Your task to perform on an android device: open chrome privacy settings Image 0: 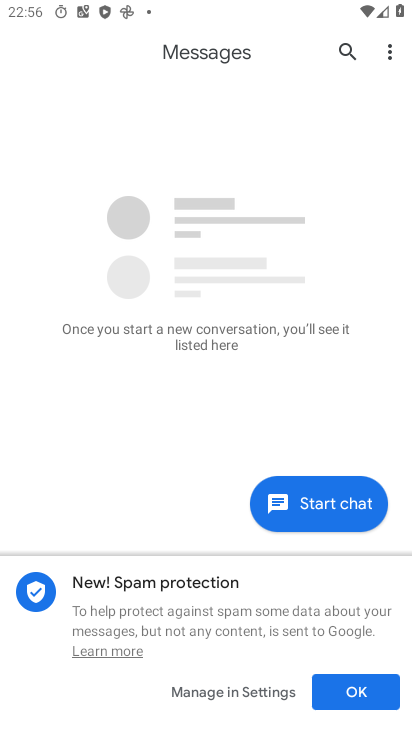
Step 0: press home button
Your task to perform on an android device: open chrome privacy settings Image 1: 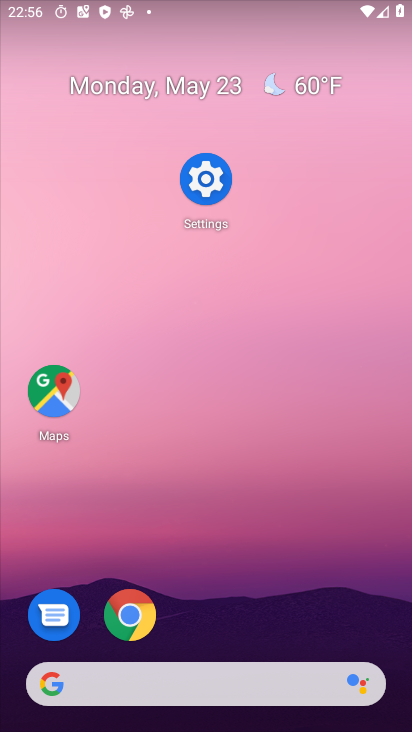
Step 1: click (126, 617)
Your task to perform on an android device: open chrome privacy settings Image 2: 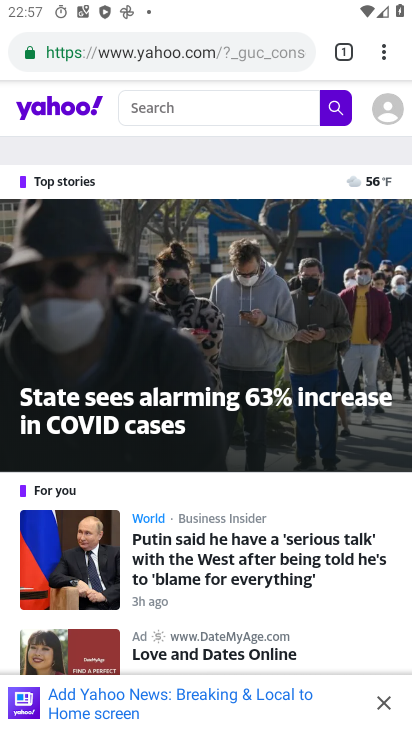
Step 2: click (376, 55)
Your task to perform on an android device: open chrome privacy settings Image 3: 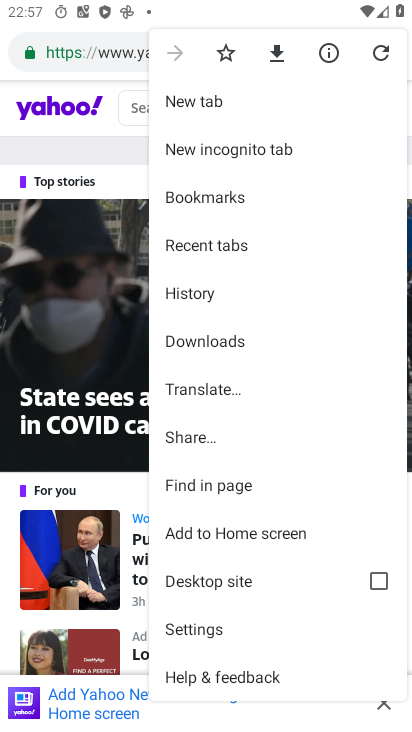
Step 3: click (218, 632)
Your task to perform on an android device: open chrome privacy settings Image 4: 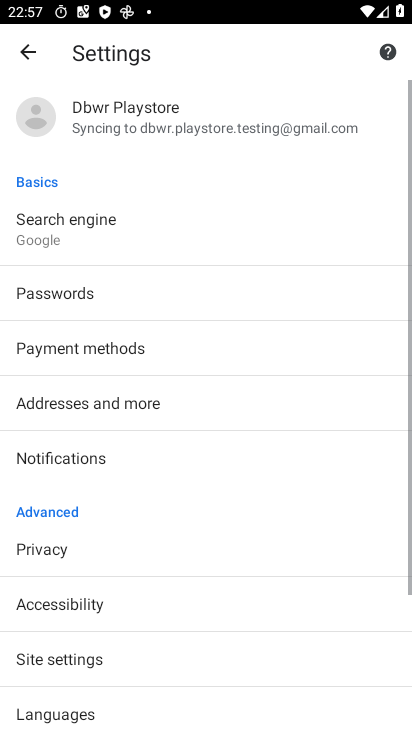
Step 4: click (72, 546)
Your task to perform on an android device: open chrome privacy settings Image 5: 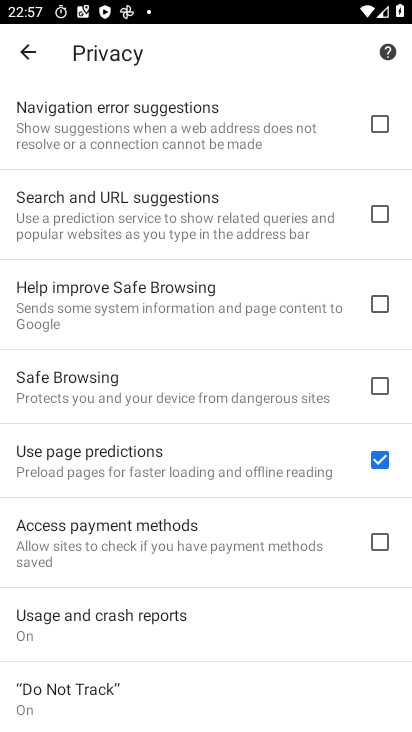
Step 5: task complete